Your task to perform on an android device: Open CNN.com Image 0: 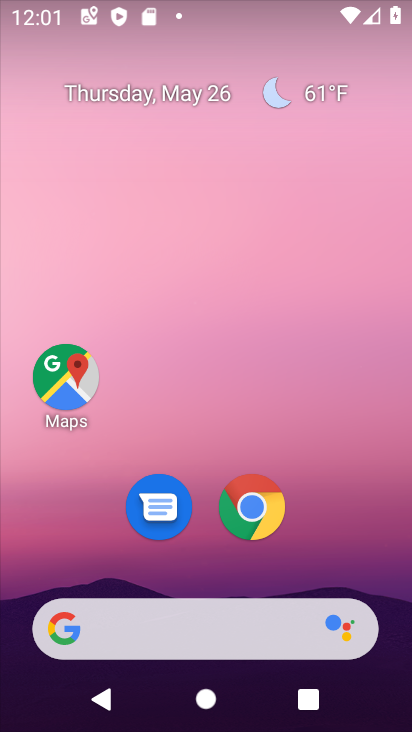
Step 0: drag from (347, 578) to (295, 139)
Your task to perform on an android device: Open CNN.com Image 1: 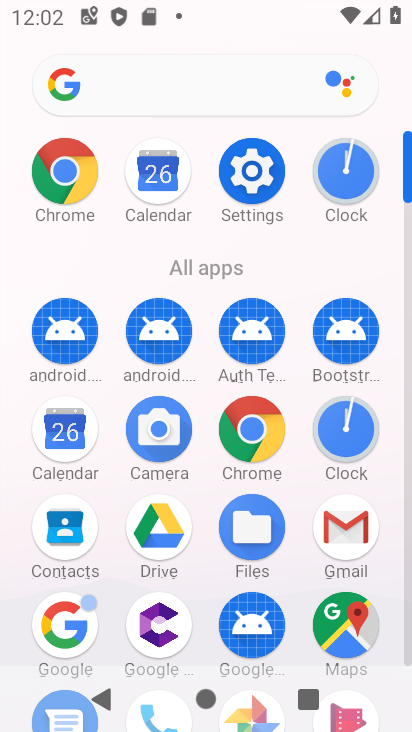
Step 1: click (65, 164)
Your task to perform on an android device: Open CNN.com Image 2: 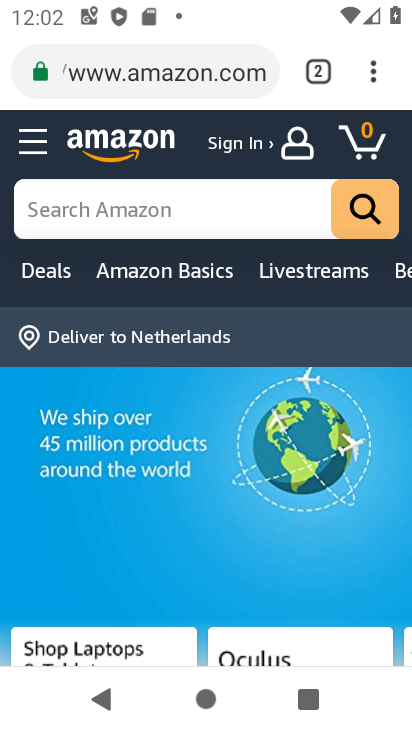
Step 2: click (212, 81)
Your task to perform on an android device: Open CNN.com Image 3: 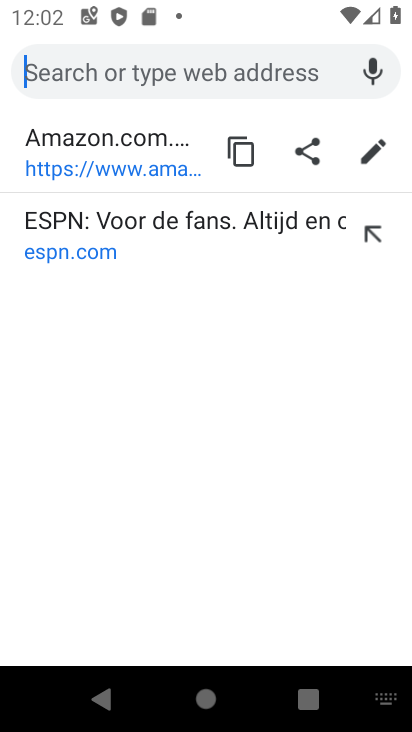
Step 3: type "cnn.com"
Your task to perform on an android device: Open CNN.com Image 4: 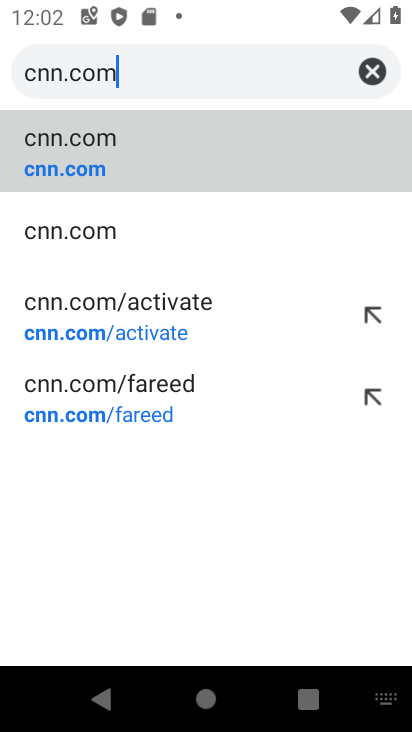
Step 4: click (223, 165)
Your task to perform on an android device: Open CNN.com Image 5: 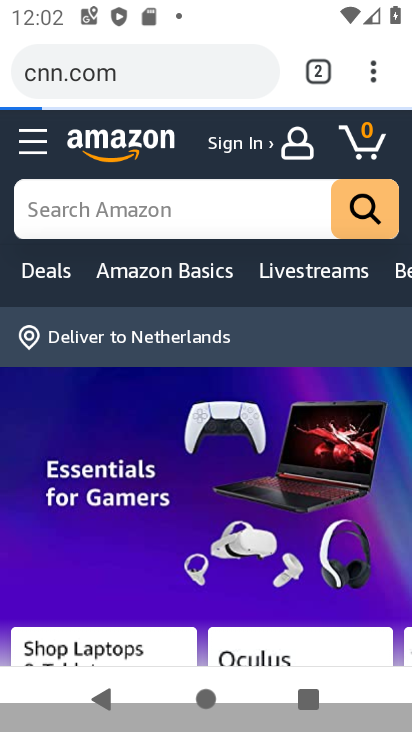
Step 5: task complete